Your task to perform on an android device: show emergency info Image 0: 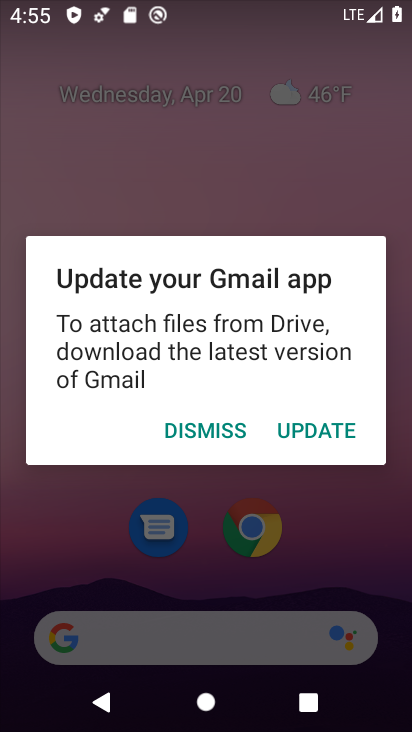
Step 0: press home button
Your task to perform on an android device: show emergency info Image 1: 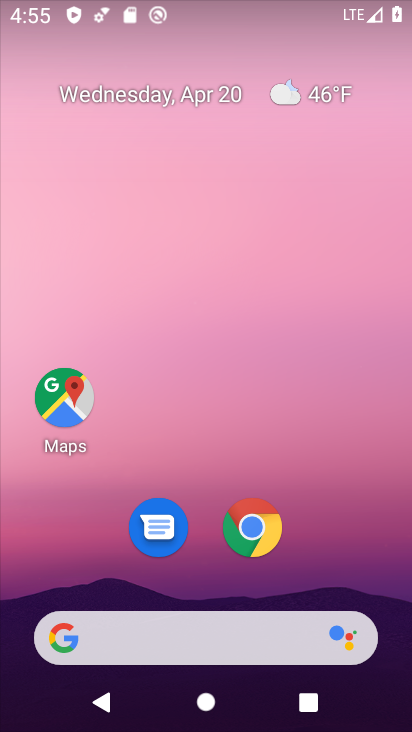
Step 1: drag from (204, 568) to (207, 75)
Your task to perform on an android device: show emergency info Image 2: 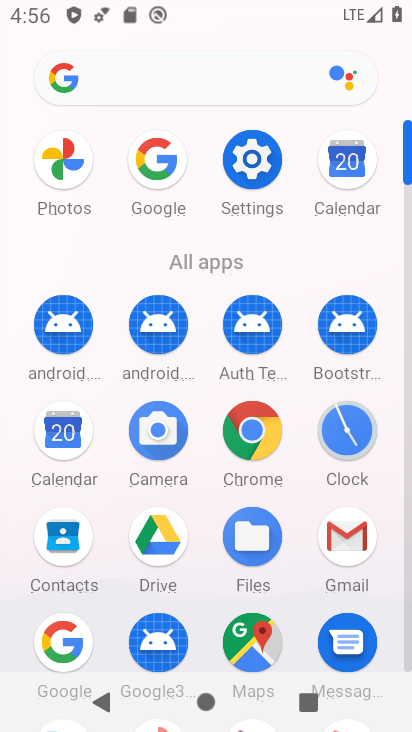
Step 2: click (259, 171)
Your task to perform on an android device: show emergency info Image 3: 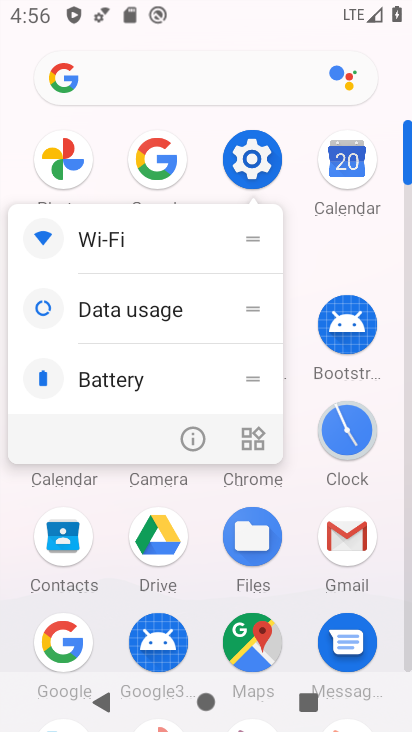
Step 3: click (256, 166)
Your task to perform on an android device: show emergency info Image 4: 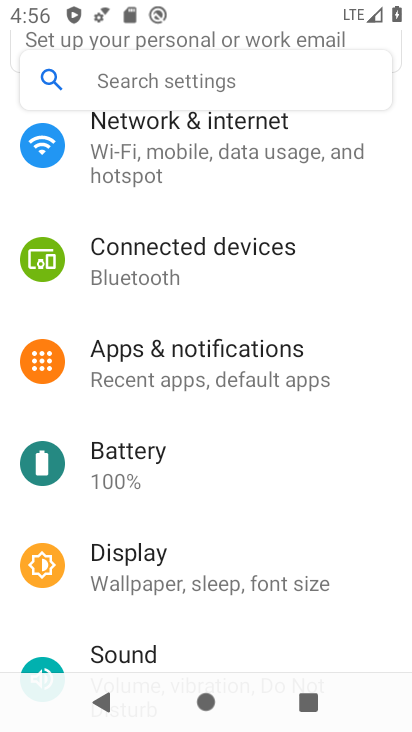
Step 4: drag from (261, 542) to (246, 82)
Your task to perform on an android device: show emergency info Image 5: 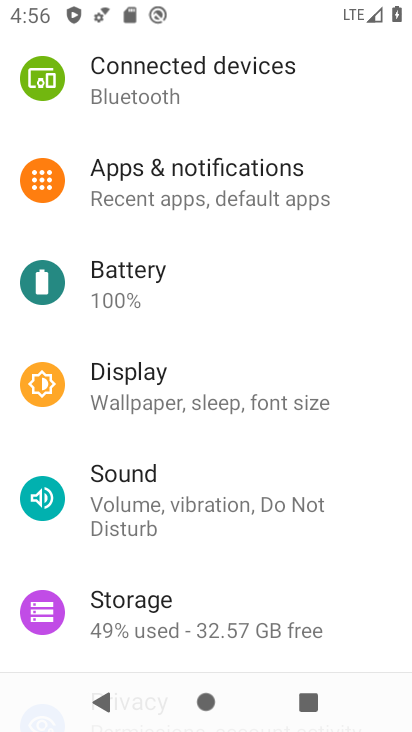
Step 5: drag from (189, 592) to (205, 41)
Your task to perform on an android device: show emergency info Image 6: 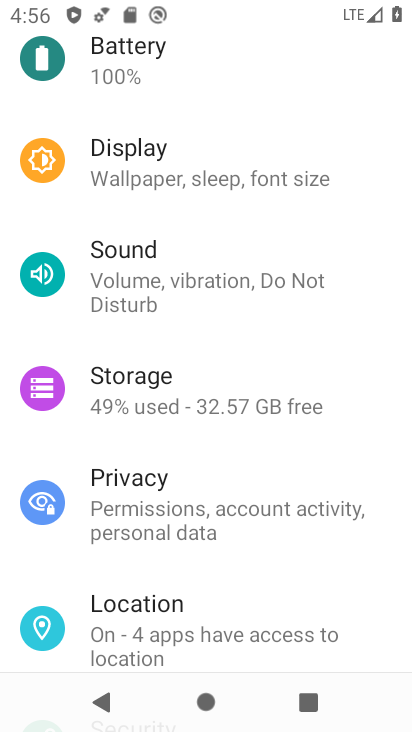
Step 6: drag from (243, 439) to (243, 150)
Your task to perform on an android device: show emergency info Image 7: 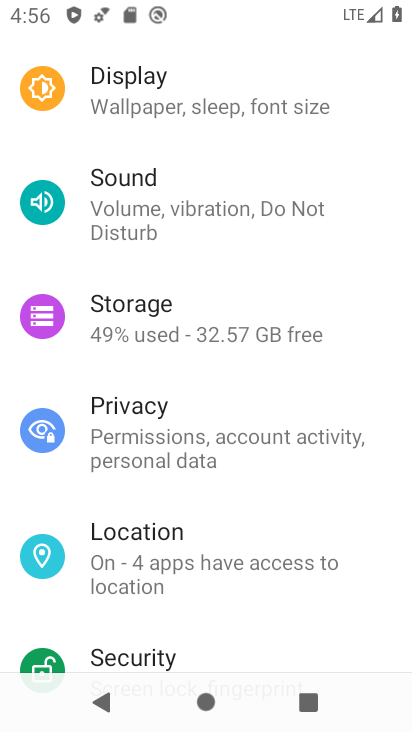
Step 7: drag from (225, 618) to (237, 184)
Your task to perform on an android device: show emergency info Image 8: 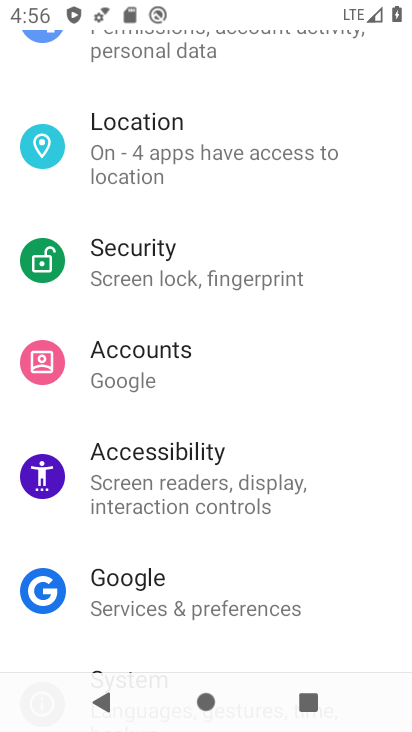
Step 8: drag from (208, 627) to (234, 211)
Your task to perform on an android device: show emergency info Image 9: 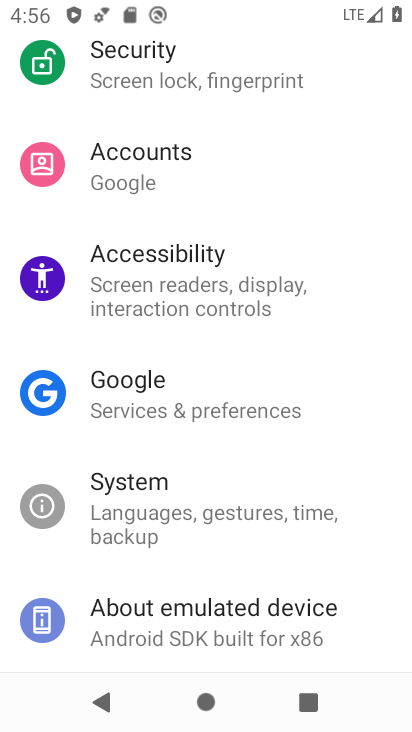
Step 9: click (238, 606)
Your task to perform on an android device: show emergency info Image 10: 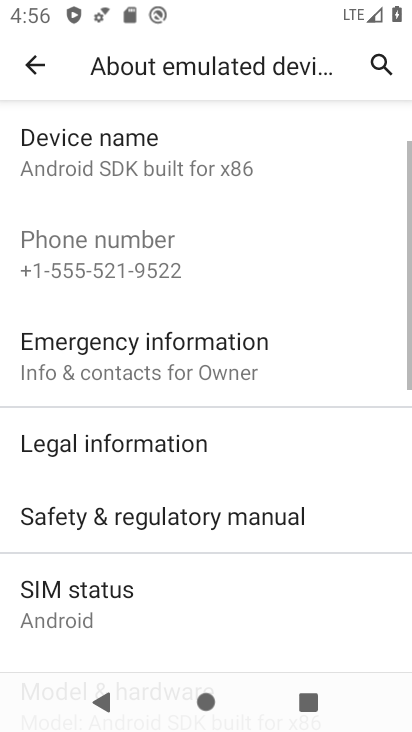
Step 10: click (163, 347)
Your task to perform on an android device: show emergency info Image 11: 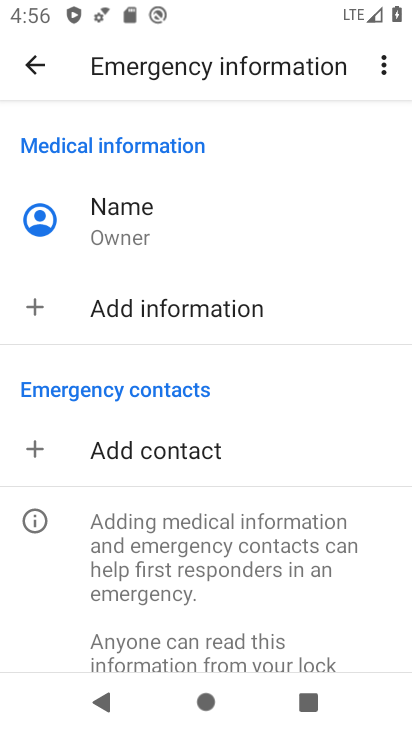
Step 11: task complete